Your task to perform on an android device: check google app version Image 0: 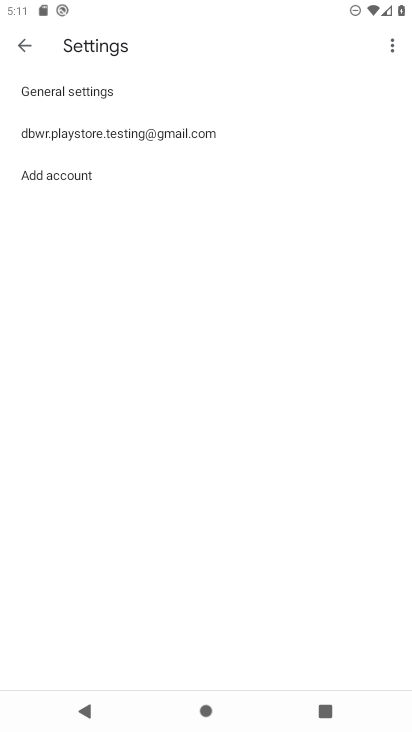
Step 0: press home button
Your task to perform on an android device: check google app version Image 1: 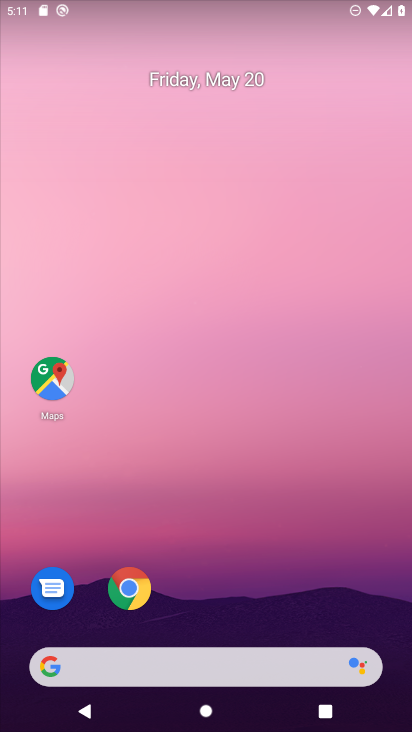
Step 1: click (186, 687)
Your task to perform on an android device: check google app version Image 2: 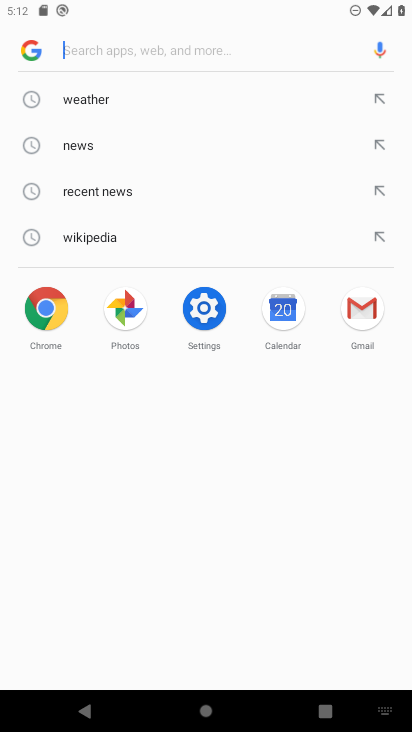
Step 2: click (32, 45)
Your task to perform on an android device: check google app version Image 3: 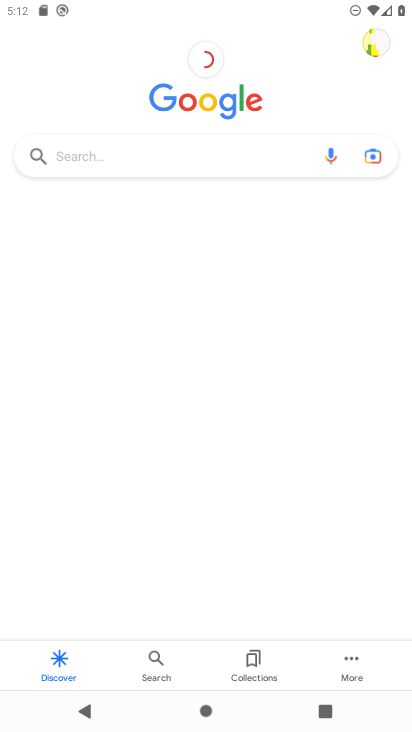
Step 3: click (348, 669)
Your task to perform on an android device: check google app version Image 4: 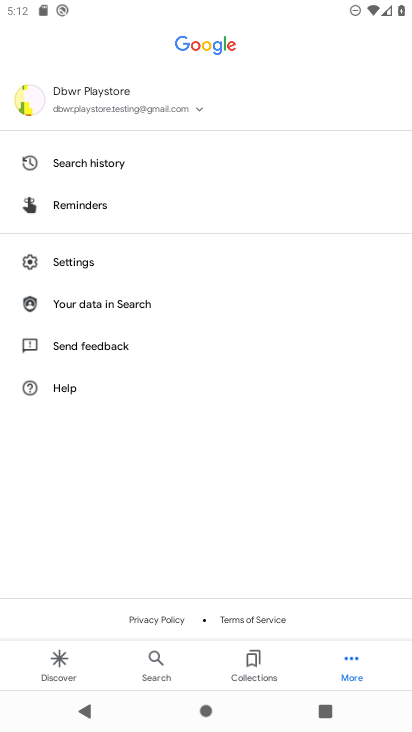
Step 4: click (86, 260)
Your task to perform on an android device: check google app version Image 5: 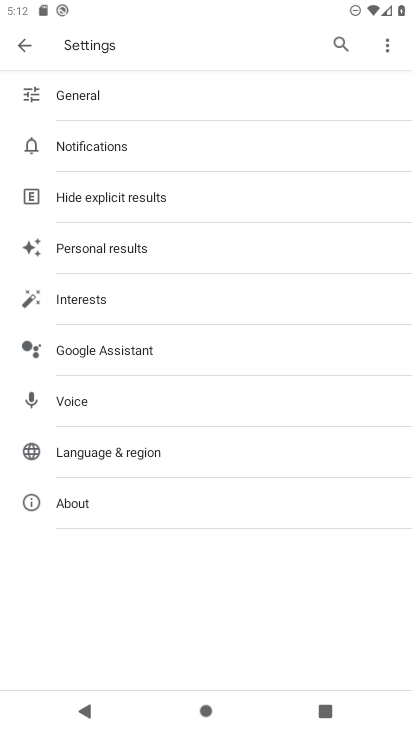
Step 5: click (92, 503)
Your task to perform on an android device: check google app version Image 6: 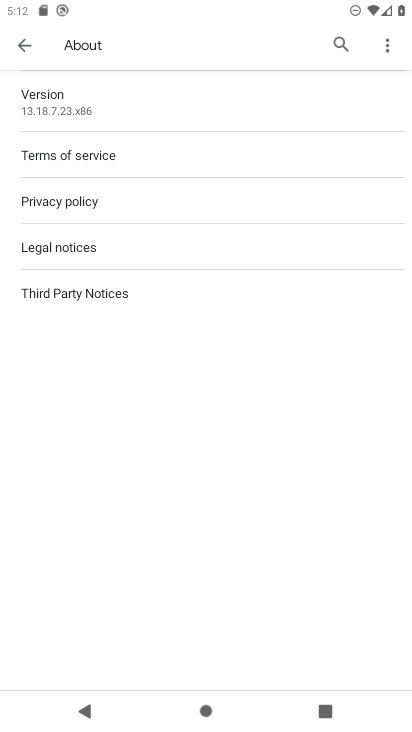
Step 6: task complete